Your task to perform on an android device: Open the web browser Image 0: 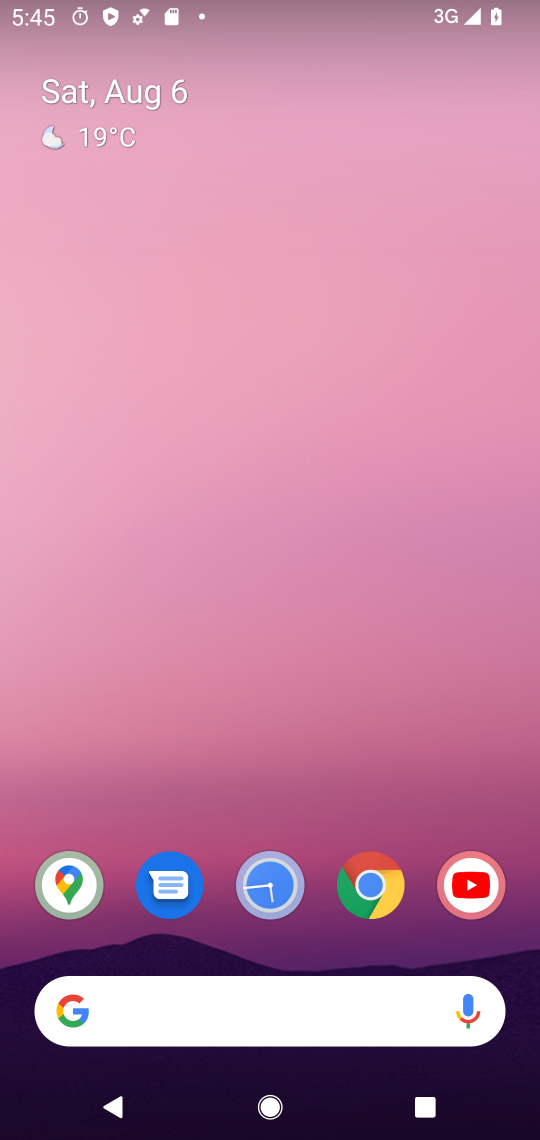
Step 0: drag from (417, 803) to (253, 35)
Your task to perform on an android device: Open the web browser Image 1: 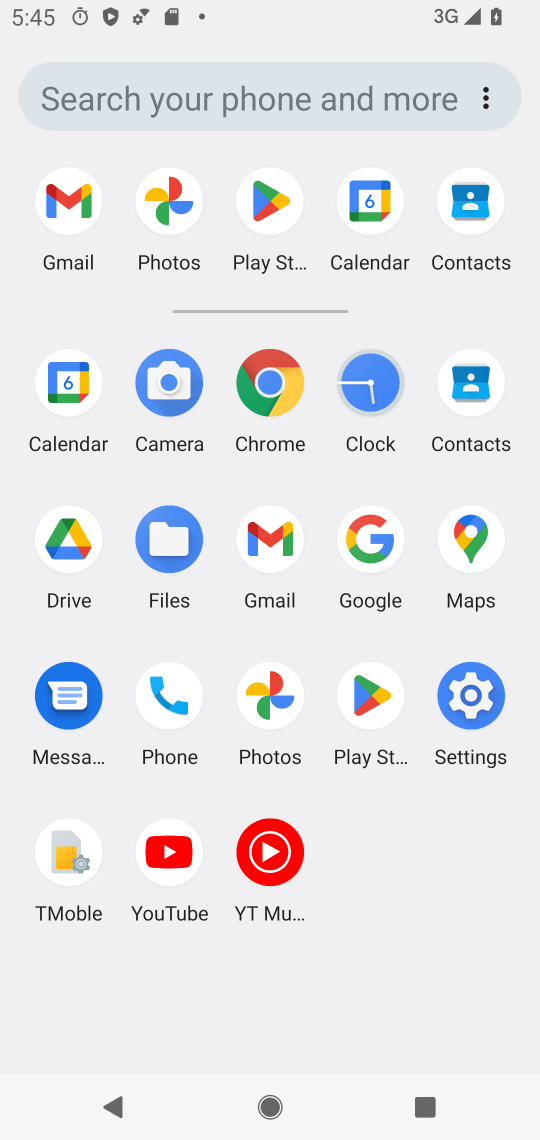
Step 1: click (350, 529)
Your task to perform on an android device: Open the web browser Image 2: 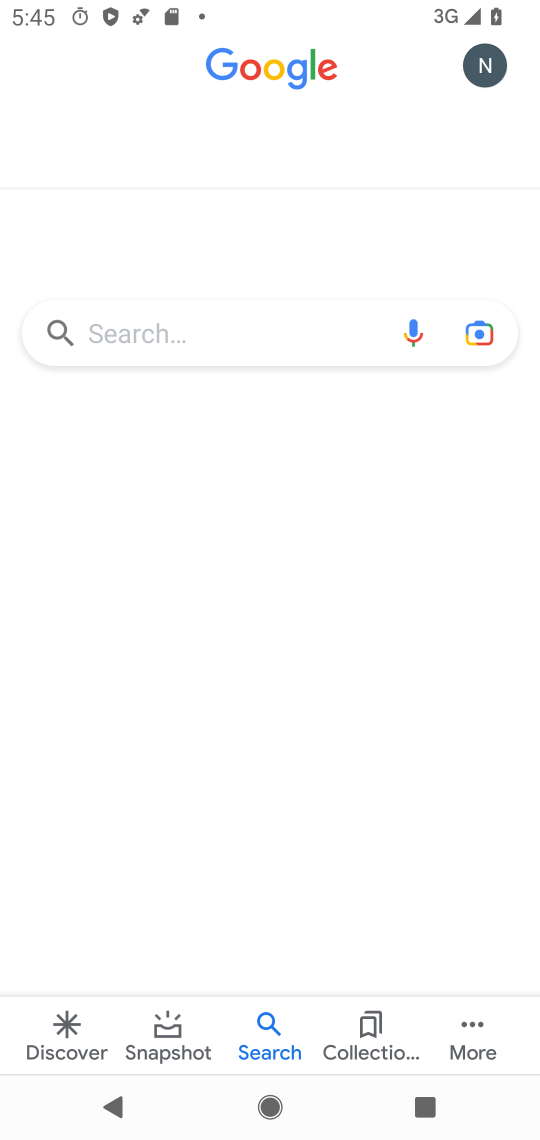
Step 2: click (193, 322)
Your task to perform on an android device: Open the web browser Image 3: 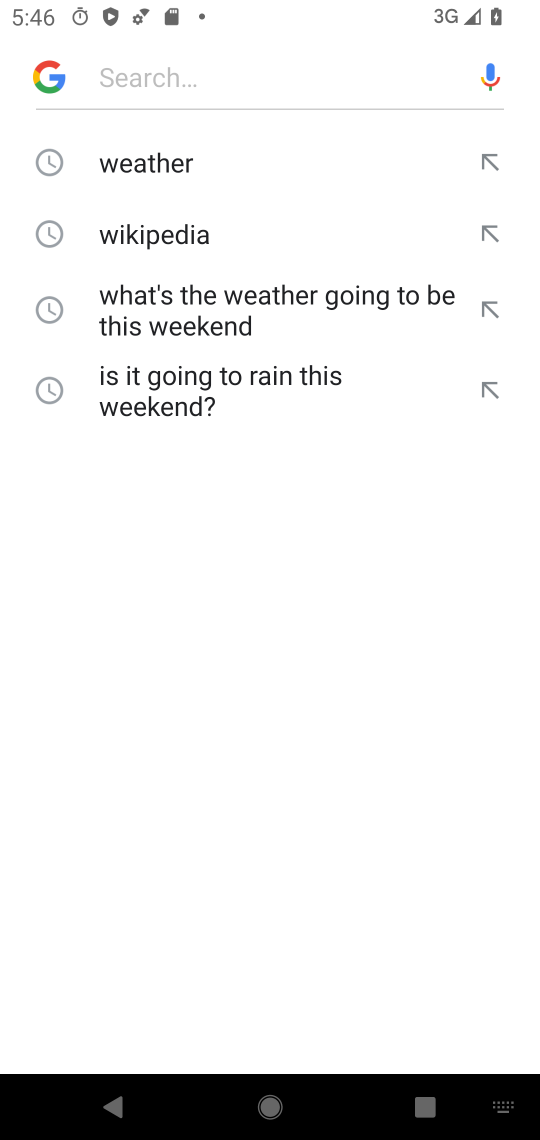
Step 3: type "web browser"
Your task to perform on an android device: Open the web browser Image 4: 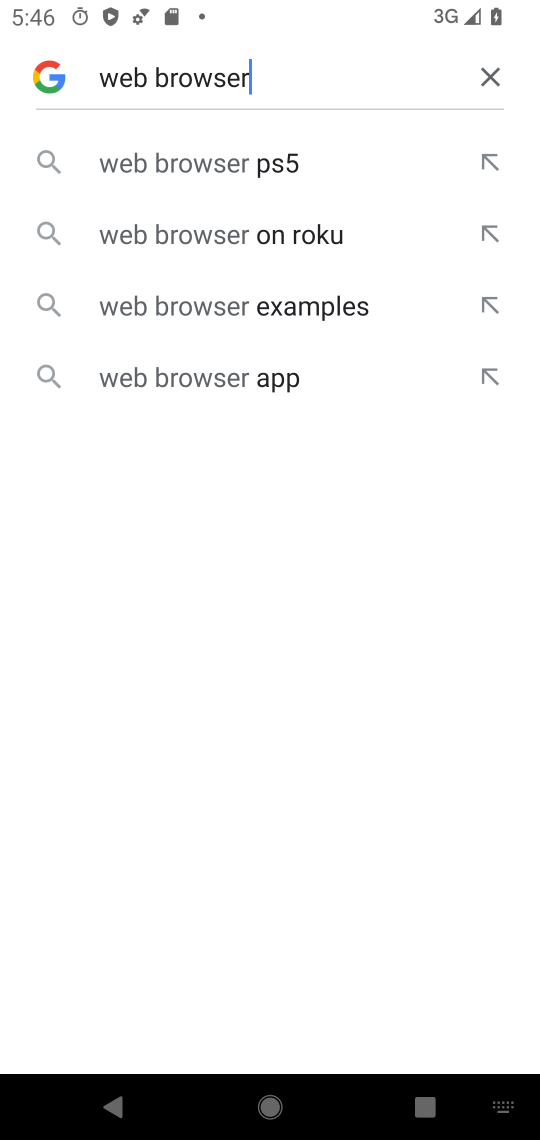
Step 4: task complete